Your task to perform on an android device: add a label to a message in the gmail app Image 0: 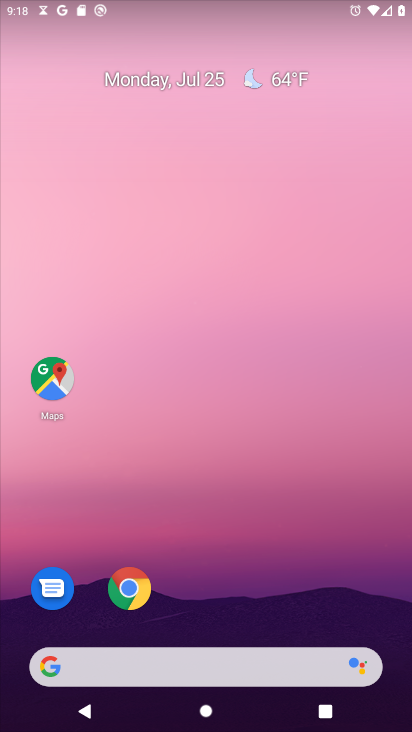
Step 0: drag from (181, 655) to (191, 87)
Your task to perform on an android device: add a label to a message in the gmail app Image 1: 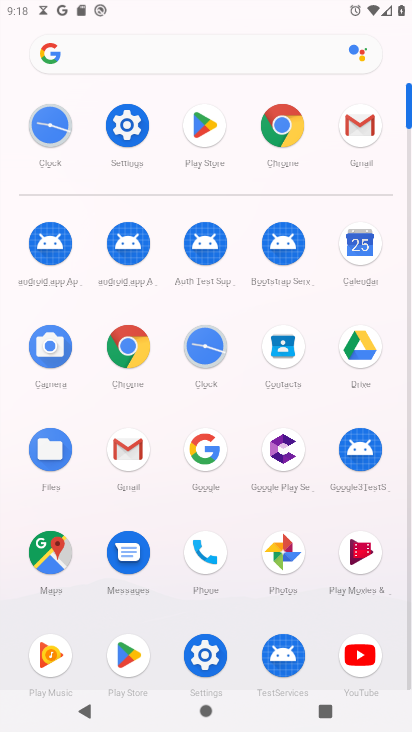
Step 1: click (135, 437)
Your task to perform on an android device: add a label to a message in the gmail app Image 2: 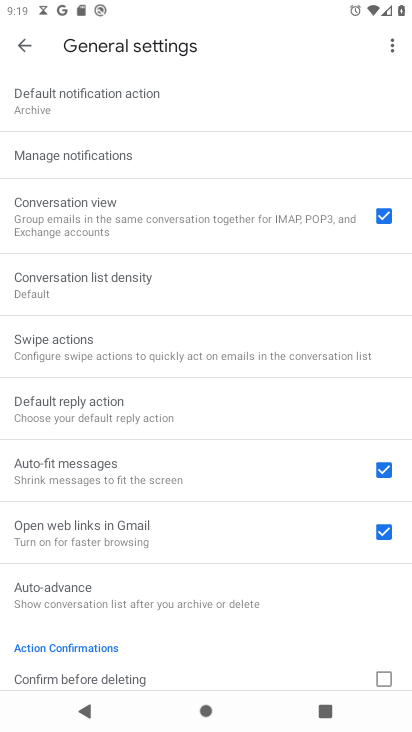
Step 2: click (23, 44)
Your task to perform on an android device: add a label to a message in the gmail app Image 3: 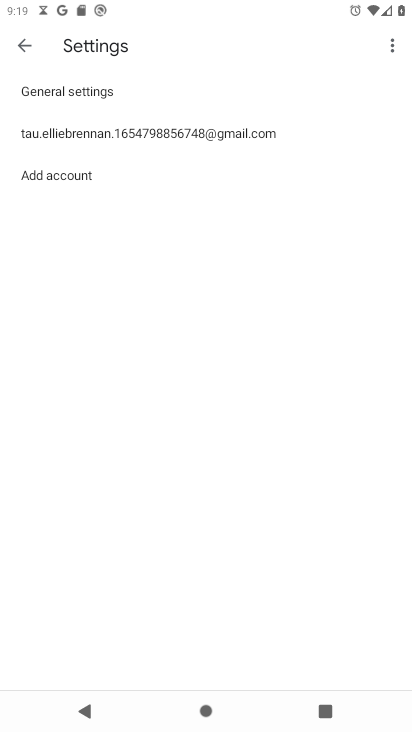
Step 3: click (23, 44)
Your task to perform on an android device: add a label to a message in the gmail app Image 4: 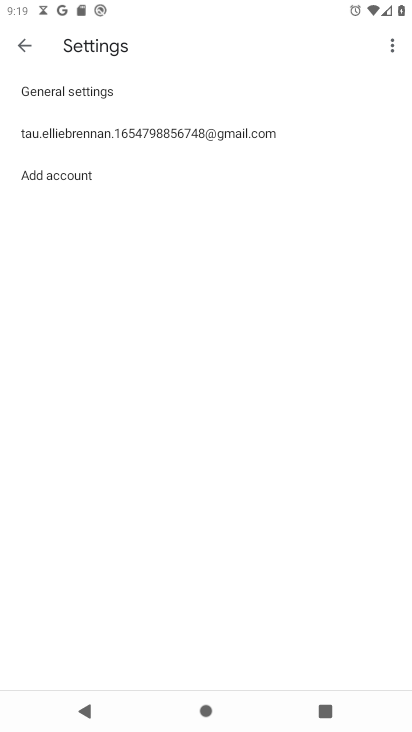
Step 4: click (23, 44)
Your task to perform on an android device: add a label to a message in the gmail app Image 5: 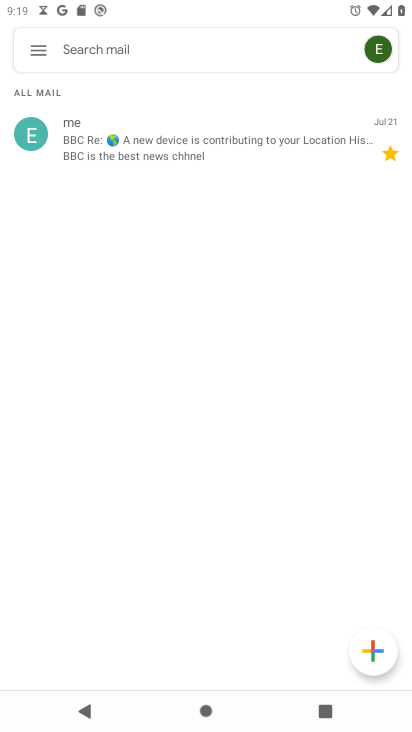
Step 5: click (124, 141)
Your task to perform on an android device: add a label to a message in the gmail app Image 6: 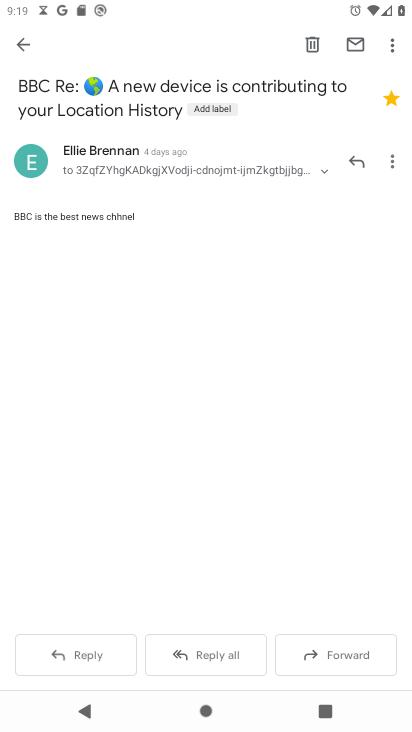
Step 6: click (212, 107)
Your task to perform on an android device: add a label to a message in the gmail app Image 7: 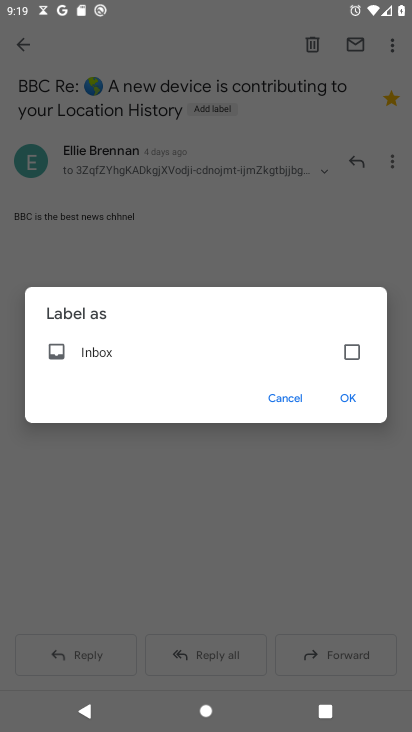
Step 7: click (103, 356)
Your task to perform on an android device: add a label to a message in the gmail app Image 8: 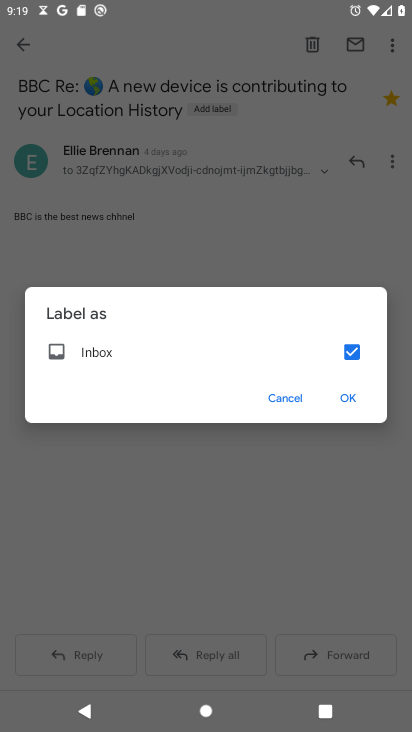
Step 8: click (346, 393)
Your task to perform on an android device: add a label to a message in the gmail app Image 9: 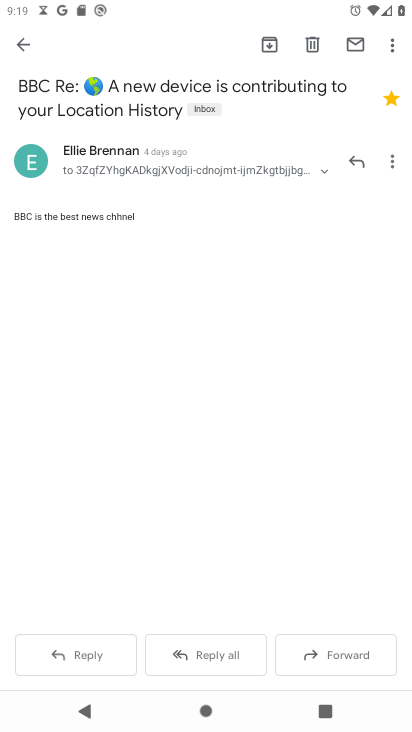
Step 9: task complete